Your task to perform on an android device: empty trash in the gmail app Image 0: 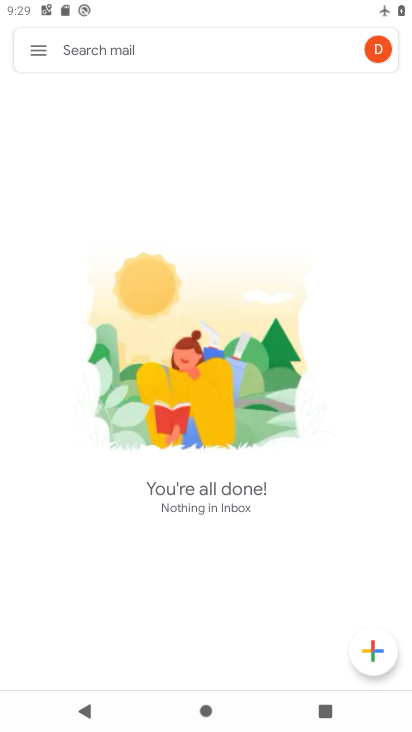
Step 0: click (34, 45)
Your task to perform on an android device: empty trash in the gmail app Image 1: 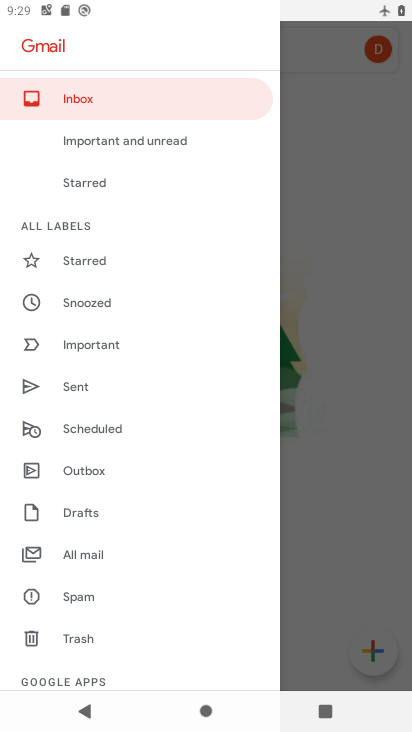
Step 1: drag from (205, 578) to (208, 487)
Your task to perform on an android device: empty trash in the gmail app Image 2: 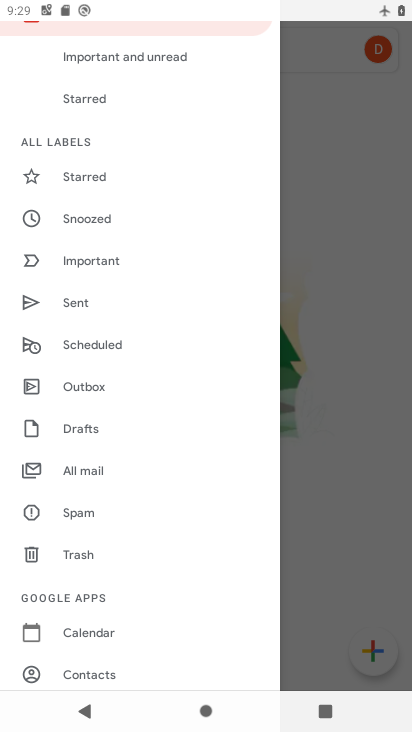
Step 2: drag from (181, 619) to (185, 513)
Your task to perform on an android device: empty trash in the gmail app Image 3: 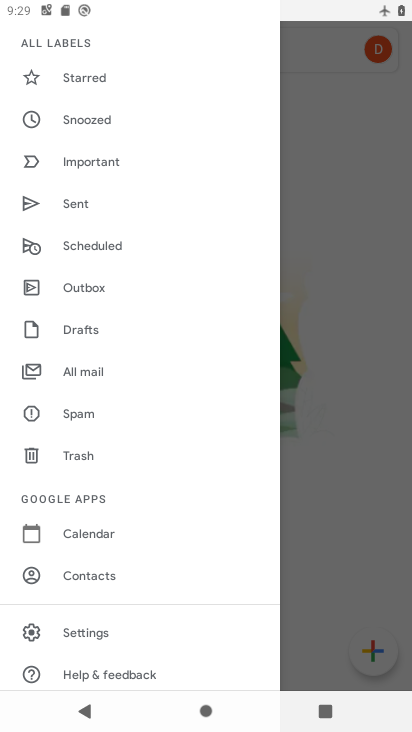
Step 3: drag from (178, 624) to (185, 523)
Your task to perform on an android device: empty trash in the gmail app Image 4: 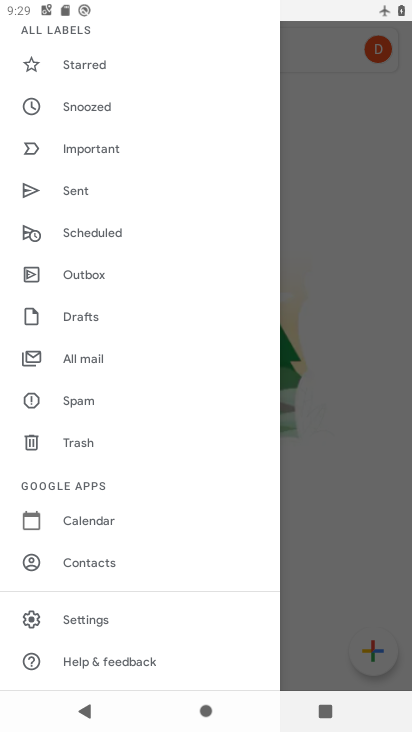
Step 4: drag from (205, 432) to (206, 506)
Your task to perform on an android device: empty trash in the gmail app Image 5: 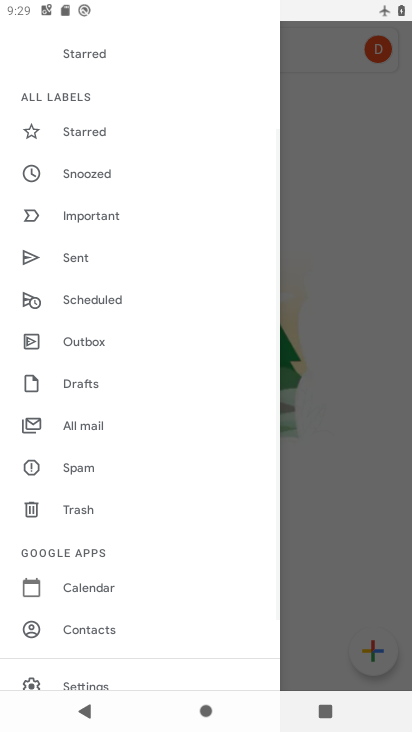
Step 5: drag from (205, 392) to (210, 473)
Your task to perform on an android device: empty trash in the gmail app Image 6: 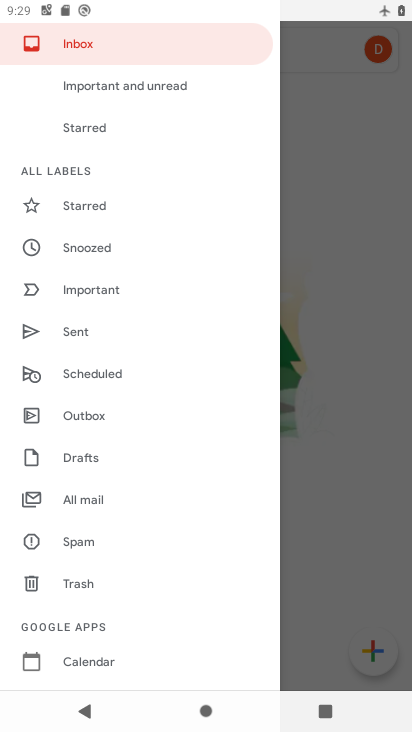
Step 6: drag from (210, 369) to (216, 487)
Your task to perform on an android device: empty trash in the gmail app Image 7: 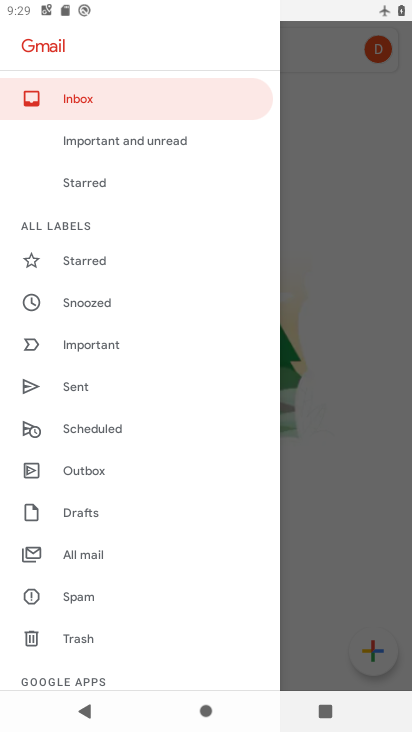
Step 7: drag from (237, 589) to (223, 493)
Your task to perform on an android device: empty trash in the gmail app Image 8: 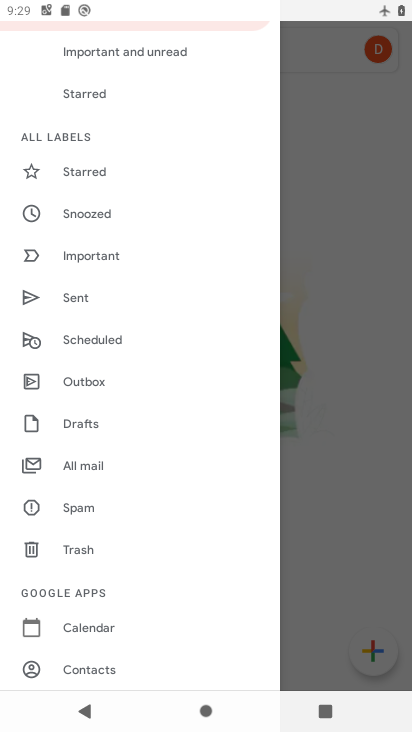
Step 8: click (115, 550)
Your task to perform on an android device: empty trash in the gmail app Image 9: 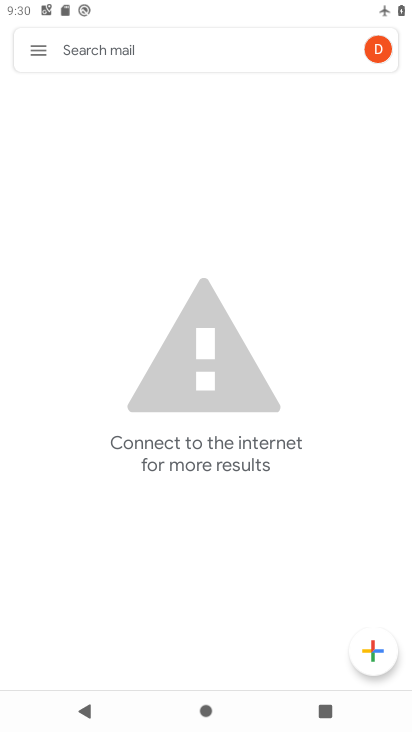
Step 9: task complete